Your task to perform on an android device: Open Yahoo.com Image 0: 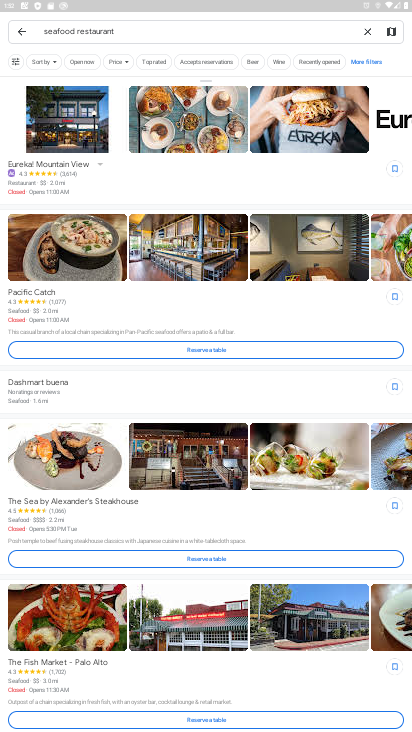
Step 0: press home button
Your task to perform on an android device: Open Yahoo.com Image 1: 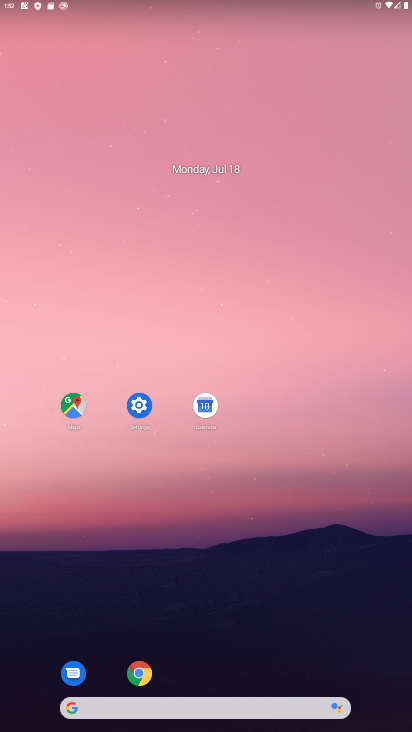
Step 1: click (135, 674)
Your task to perform on an android device: Open Yahoo.com Image 2: 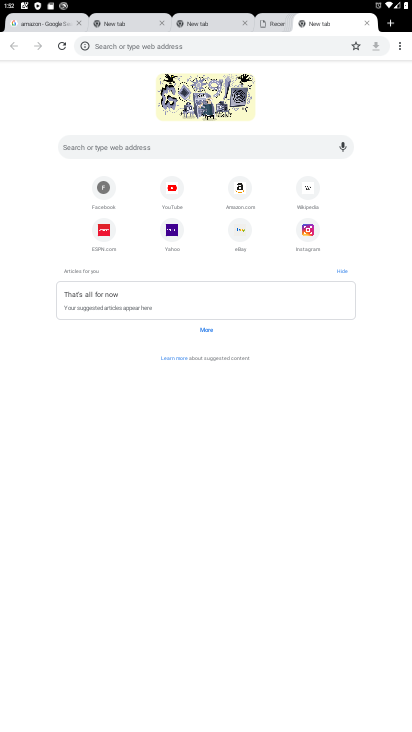
Step 2: click (232, 47)
Your task to perform on an android device: Open Yahoo.com Image 3: 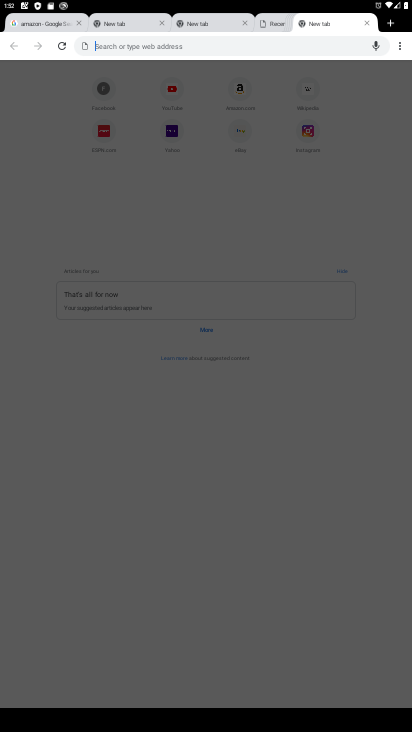
Step 3: type "Yahoo.com"
Your task to perform on an android device: Open Yahoo.com Image 4: 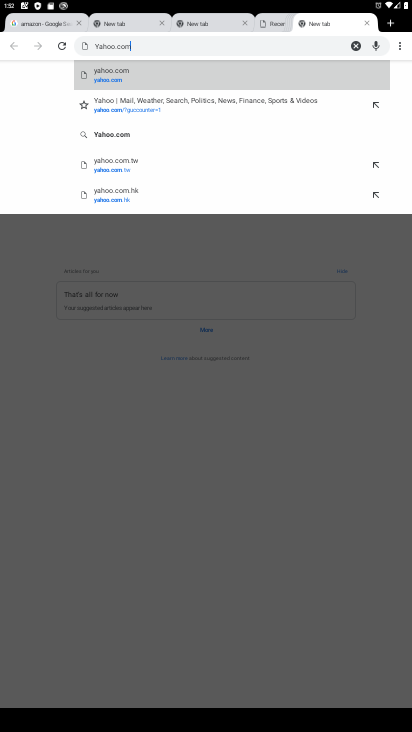
Step 4: click (118, 131)
Your task to perform on an android device: Open Yahoo.com Image 5: 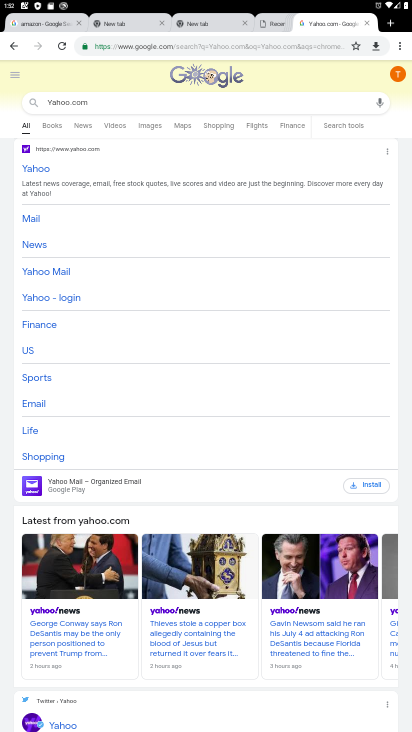
Step 5: task complete